Your task to perform on an android device: Open the calendar app, open the side menu, and click the "Day" option Image 0: 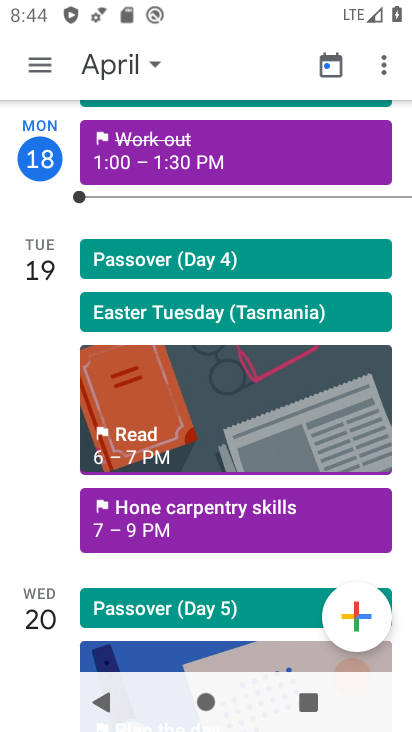
Step 0: click (35, 68)
Your task to perform on an android device: Open the calendar app, open the side menu, and click the "Day" option Image 1: 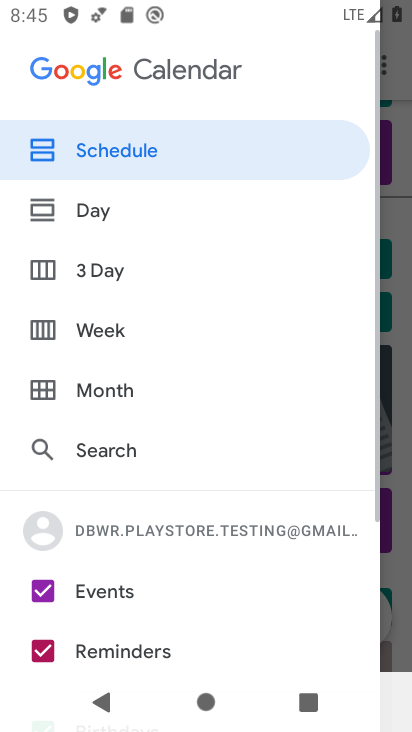
Step 1: click (114, 212)
Your task to perform on an android device: Open the calendar app, open the side menu, and click the "Day" option Image 2: 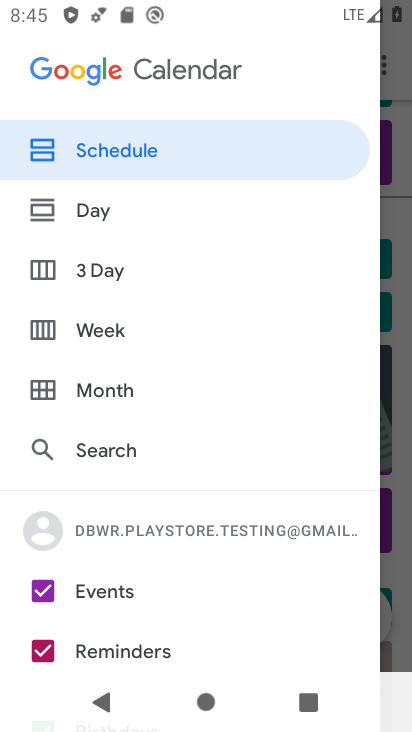
Step 2: click (112, 210)
Your task to perform on an android device: Open the calendar app, open the side menu, and click the "Day" option Image 3: 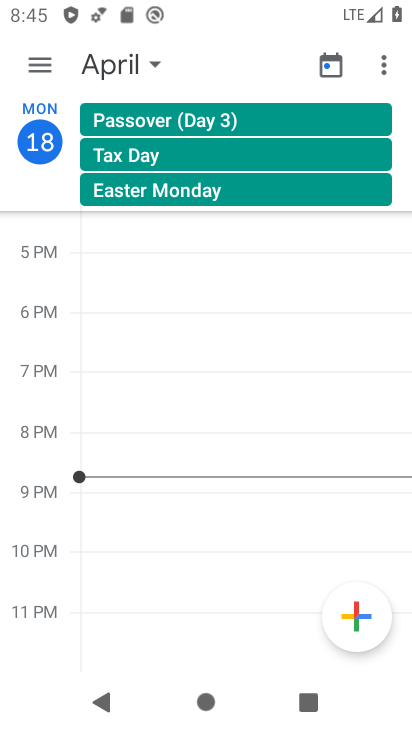
Step 3: task complete